Your task to perform on an android device: Open the calendar app, open the side menu, and click the "Day" option Image 0: 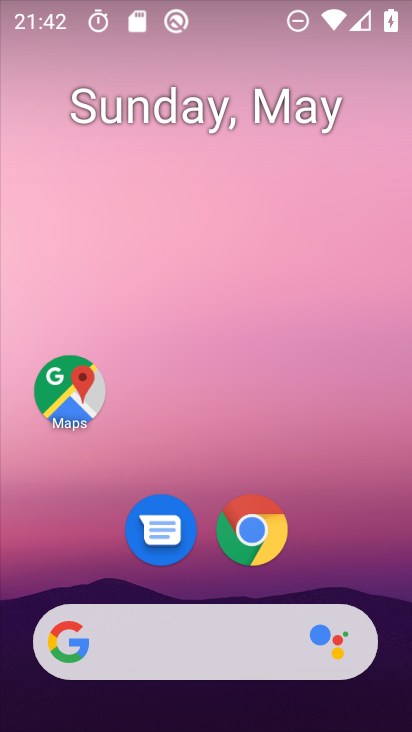
Step 0: drag from (259, 663) to (249, 8)
Your task to perform on an android device: Open the calendar app, open the side menu, and click the "Day" option Image 1: 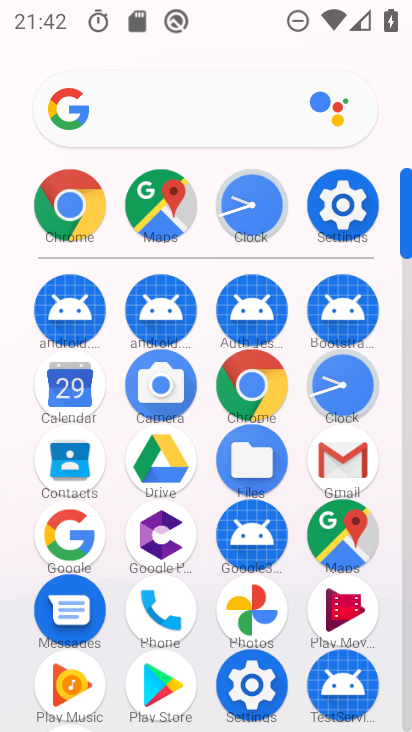
Step 1: click (70, 412)
Your task to perform on an android device: Open the calendar app, open the side menu, and click the "Day" option Image 2: 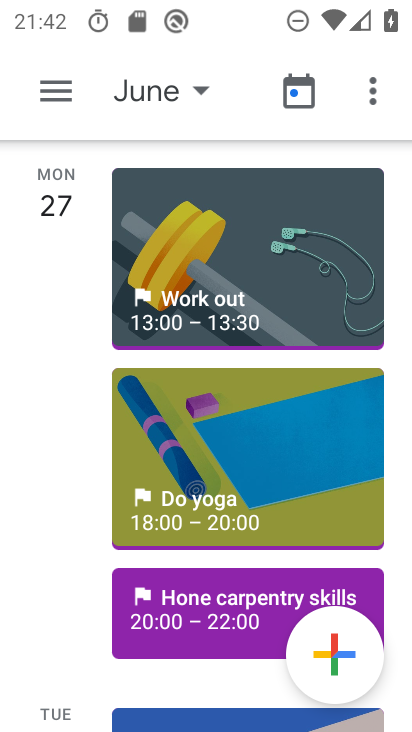
Step 2: click (42, 85)
Your task to perform on an android device: Open the calendar app, open the side menu, and click the "Day" option Image 3: 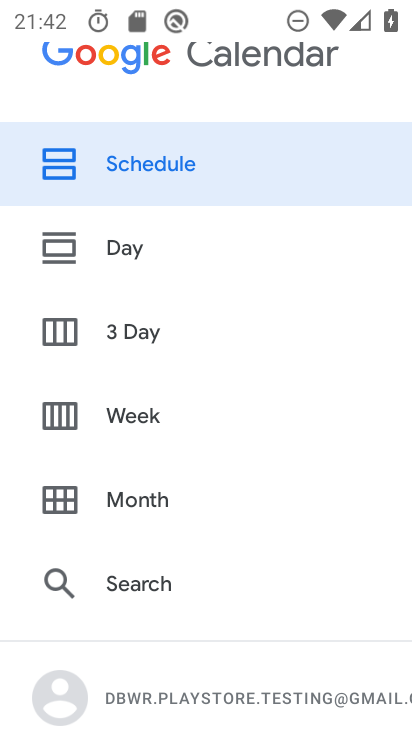
Step 3: click (157, 236)
Your task to perform on an android device: Open the calendar app, open the side menu, and click the "Day" option Image 4: 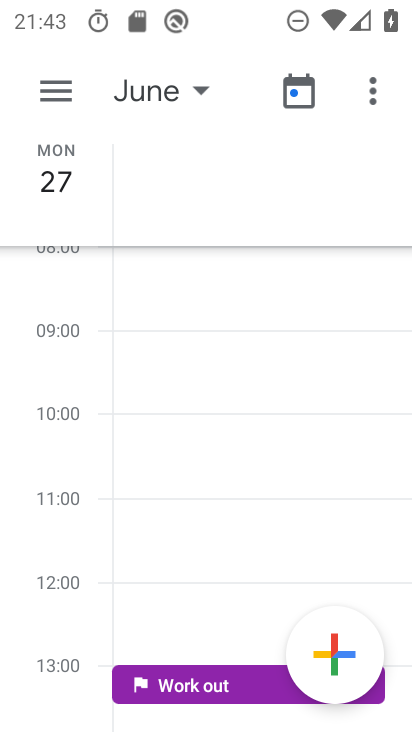
Step 4: task complete